Your task to perform on an android device: Open maps Image 0: 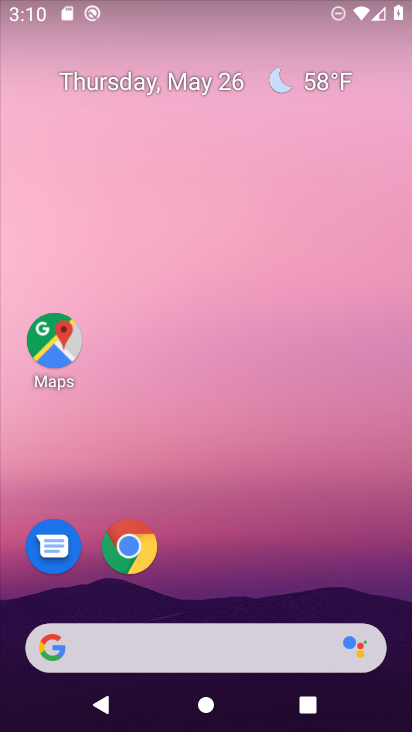
Step 0: press home button
Your task to perform on an android device: Open maps Image 1: 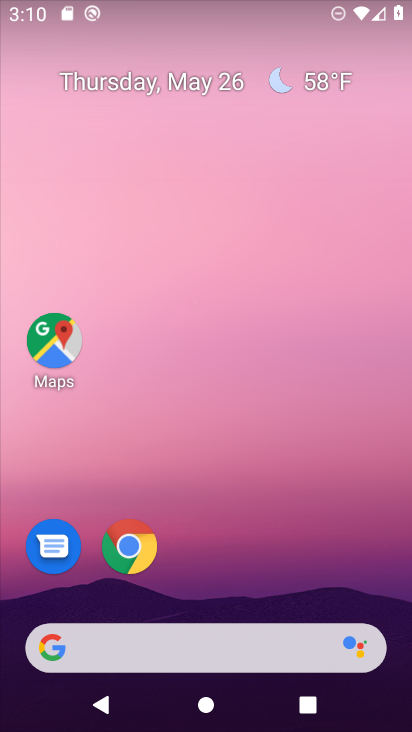
Step 1: click (53, 334)
Your task to perform on an android device: Open maps Image 2: 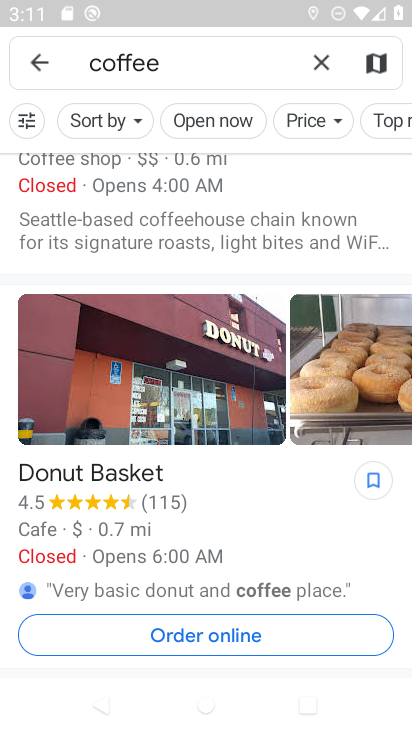
Step 2: press back button
Your task to perform on an android device: Open maps Image 3: 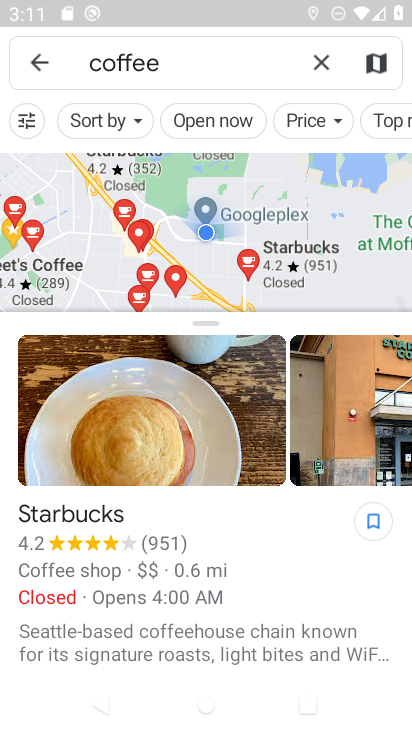
Step 3: click (35, 60)
Your task to perform on an android device: Open maps Image 4: 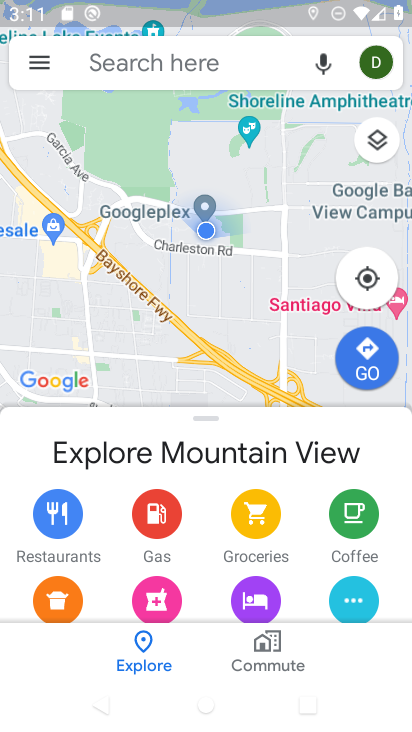
Step 4: task complete